Your task to perform on an android device: star an email in the gmail app Image 0: 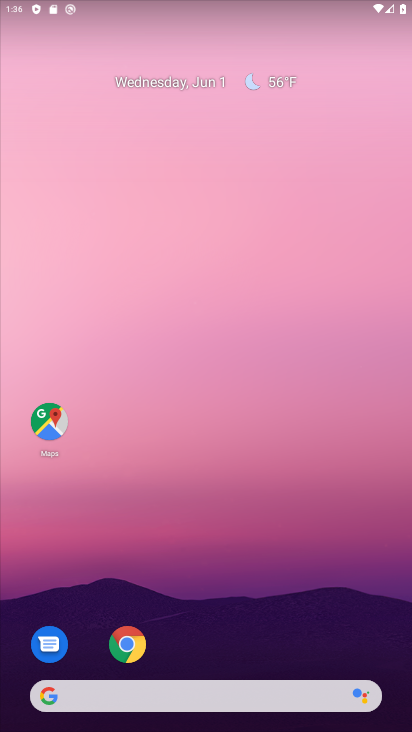
Step 0: drag from (212, 609) to (197, 281)
Your task to perform on an android device: star an email in the gmail app Image 1: 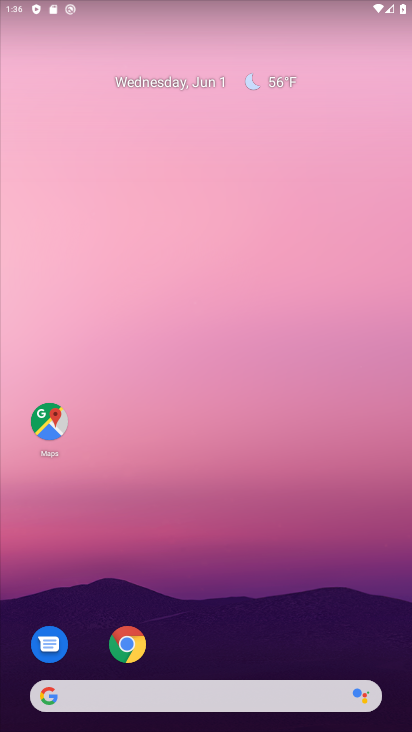
Step 1: drag from (206, 674) to (208, 231)
Your task to perform on an android device: star an email in the gmail app Image 2: 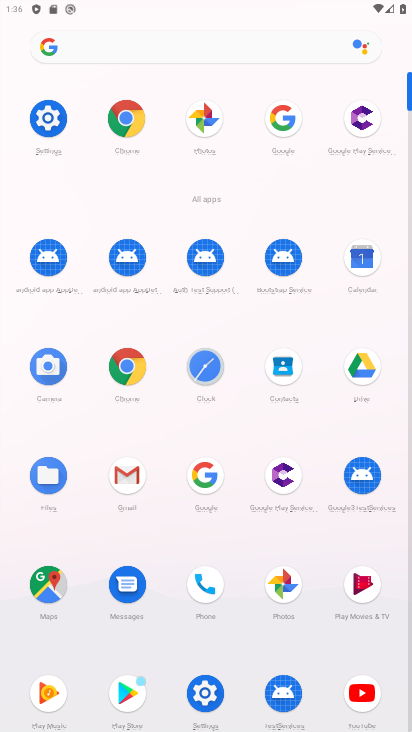
Step 2: click (131, 469)
Your task to perform on an android device: star an email in the gmail app Image 3: 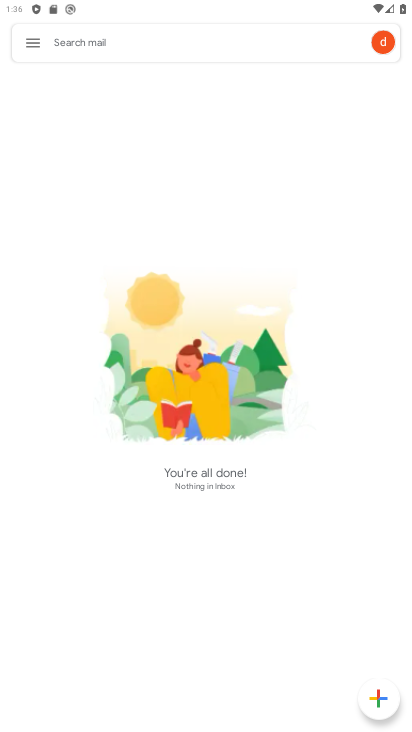
Step 3: click (30, 42)
Your task to perform on an android device: star an email in the gmail app Image 4: 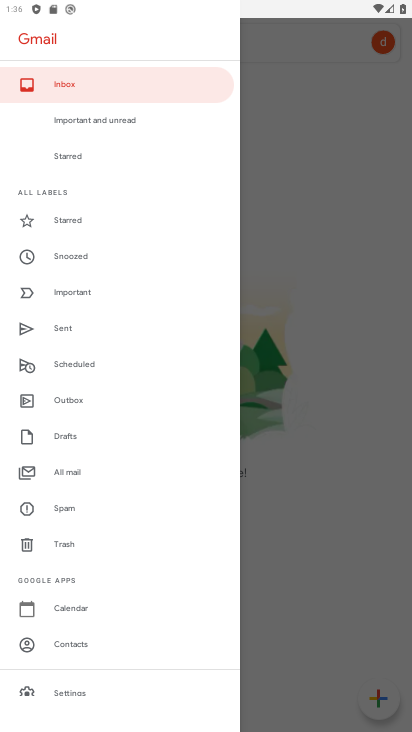
Step 4: click (76, 225)
Your task to perform on an android device: star an email in the gmail app Image 5: 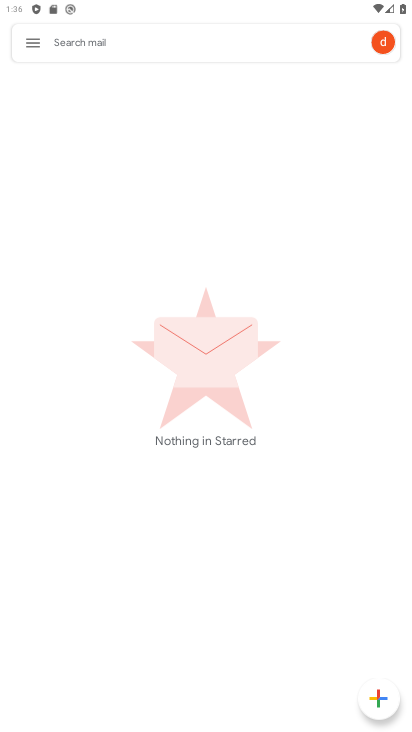
Step 5: task complete